Your task to perform on an android device: turn off location history Image 0: 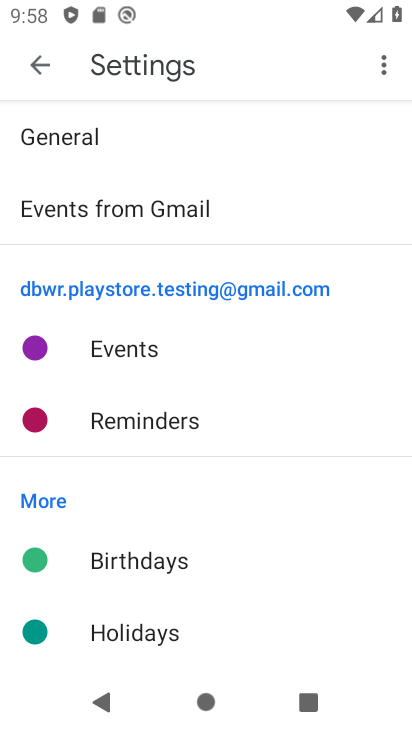
Step 0: press home button
Your task to perform on an android device: turn off location history Image 1: 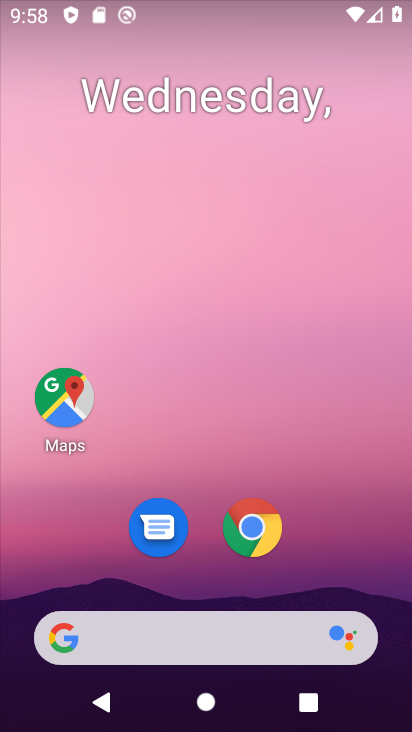
Step 1: drag from (196, 587) to (177, 187)
Your task to perform on an android device: turn off location history Image 2: 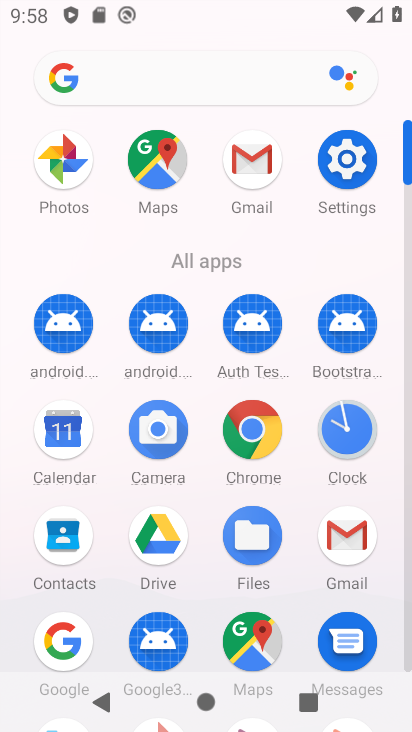
Step 2: click (357, 169)
Your task to perform on an android device: turn off location history Image 3: 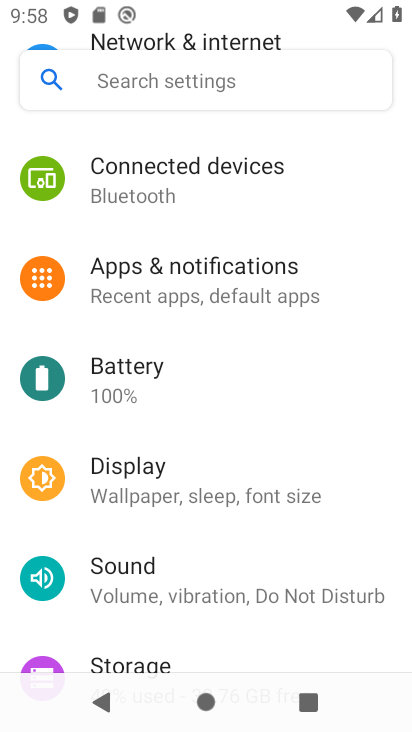
Step 3: drag from (207, 453) to (203, 165)
Your task to perform on an android device: turn off location history Image 4: 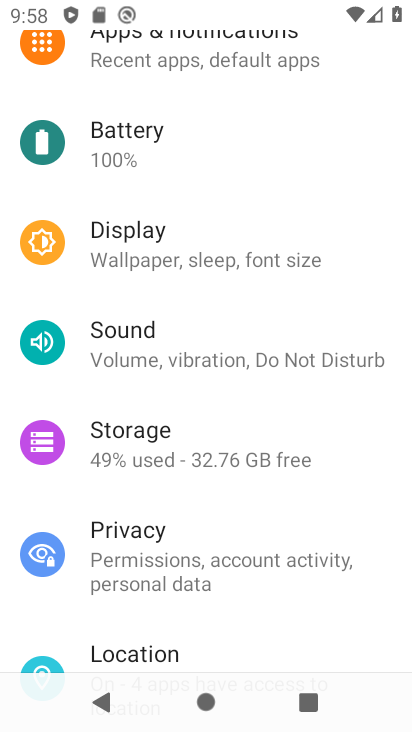
Step 4: click (123, 665)
Your task to perform on an android device: turn off location history Image 5: 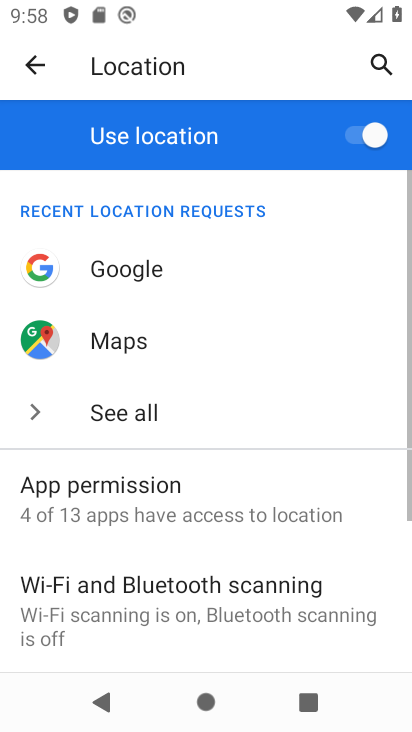
Step 5: drag from (81, 526) to (120, 227)
Your task to perform on an android device: turn off location history Image 6: 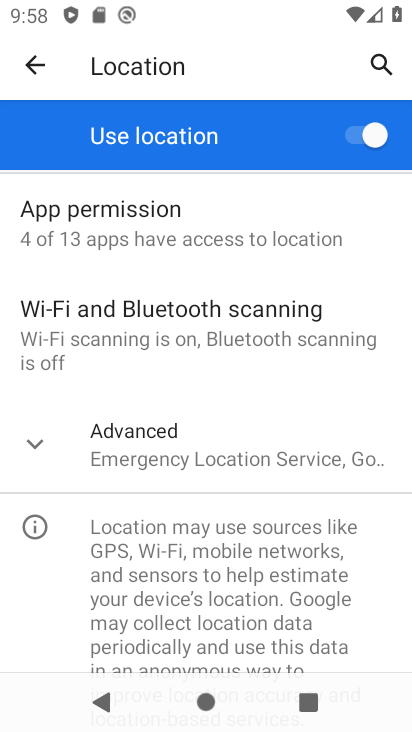
Step 6: click (39, 436)
Your task to perform on an android device: turn off location history Image 7: 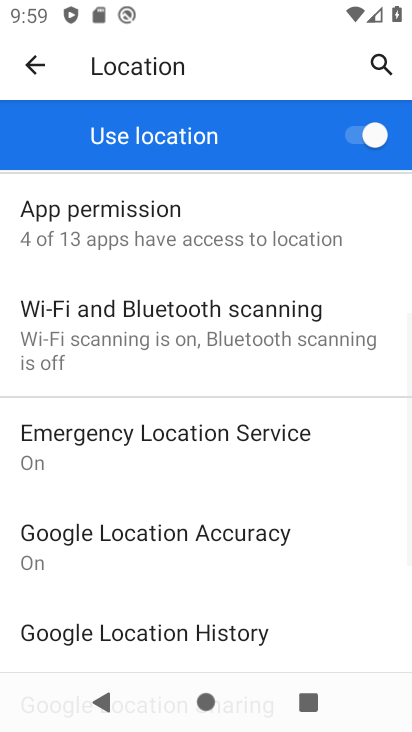
Step 7: drag from (156, 601) to (158, 312)
Your task to perform on an android device: turn off location history Image 8: 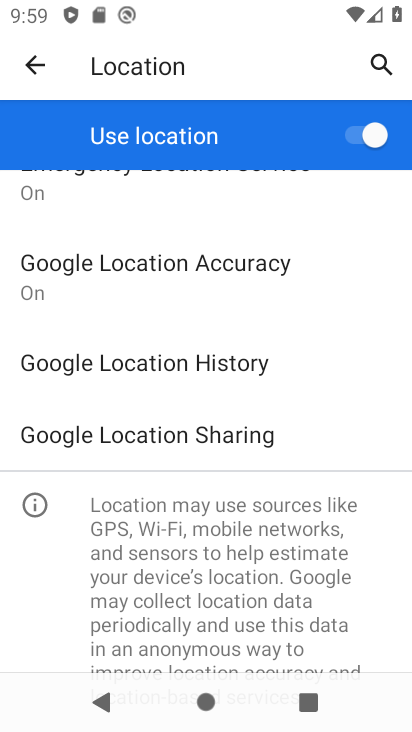
Step 8: click (121, 356)
Your task to perform on an android device: turn off location history Image 9: 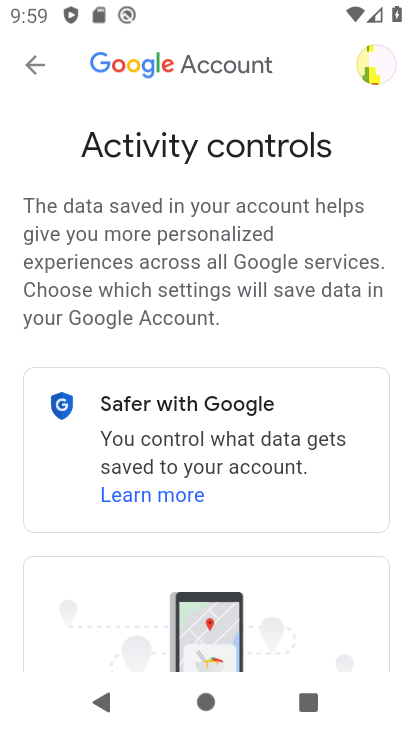
Step 9: drag from (114, 558) to (169, 251)
Your task to perform on an android device: turn off location history Image 10: 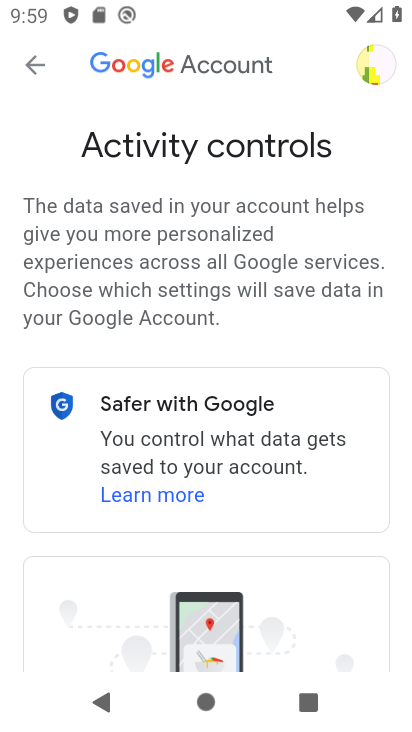
Step 10: drag from (142, 610) to (232, 103)
Your task to perform on an android device: turn off location history Image 11: 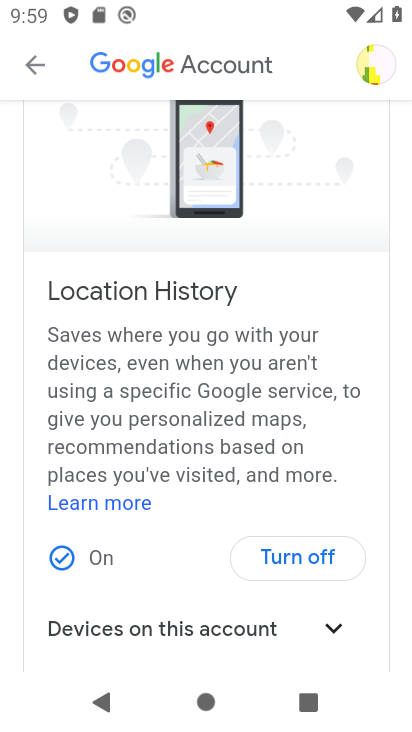
Step 11: click (280, 562)
Your task to perform on an android device: turn off location history Image 12: 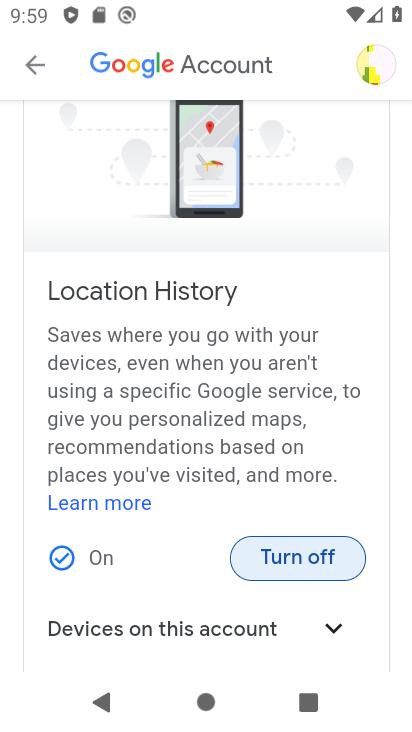
Step 12: task complete